Your task to perform on an android device: check storage Image 0: 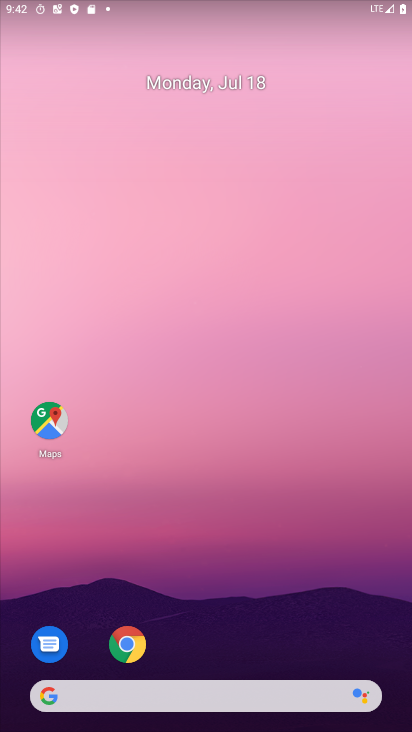
Step 0: drag from (213, 656) to (225, 84)
Your task to perform on an android device: check storage Image 1: 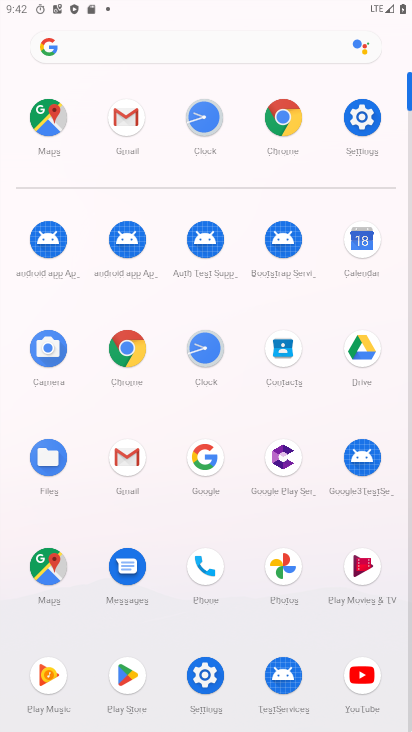
Step 1: click (210, 677)
Your task to perform on an android device: check storage Image 2: 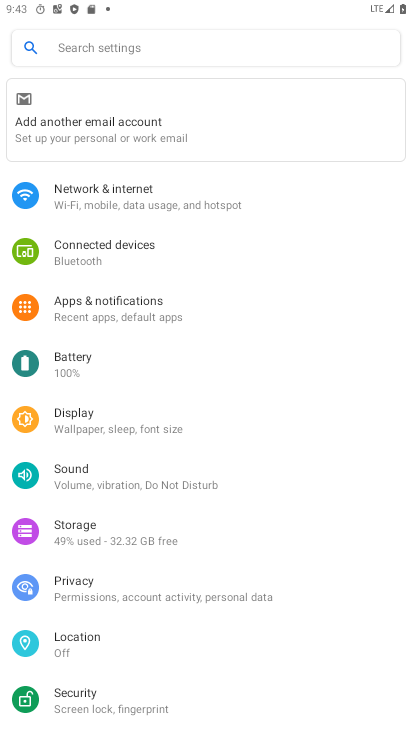
Step 2: click (54, 522)
Your task to perform on an android device: check storage Image 3: 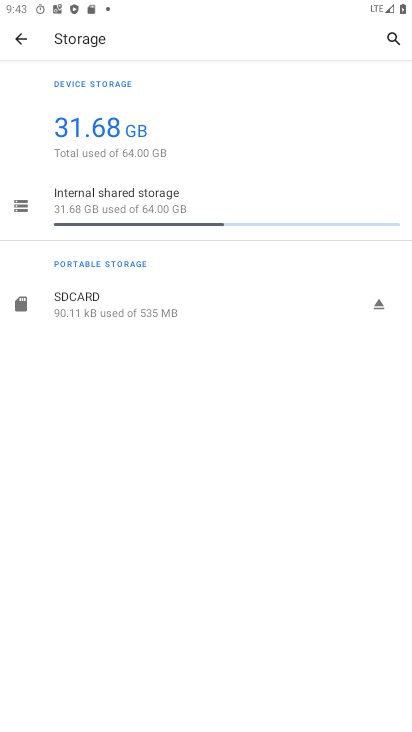
Step 3: click (132, 170)
Your task to perform on an android device: check storage Image 4: 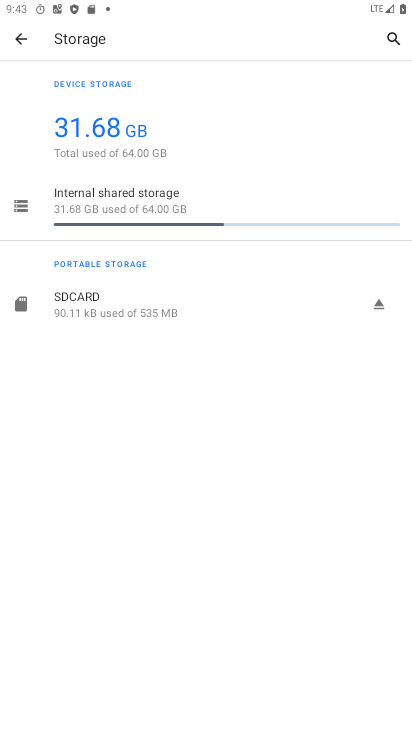
Step 4: click (134, 199)
Your task to perform on an android device: check storage Image 5: 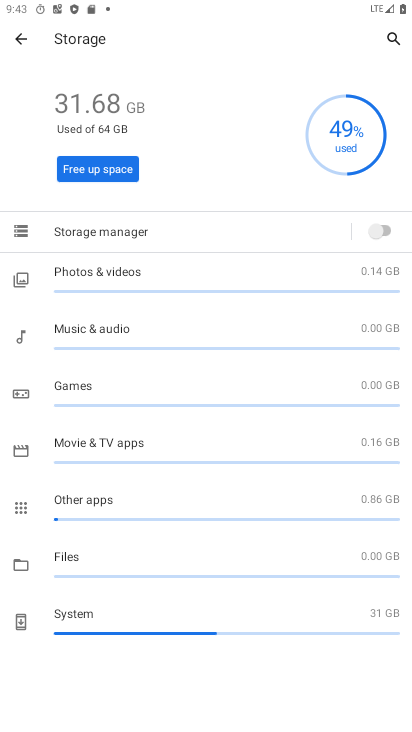
Step 5: task complete